Your task to perform on an android device: allow notifications from all sites in the chrome app Image 0: 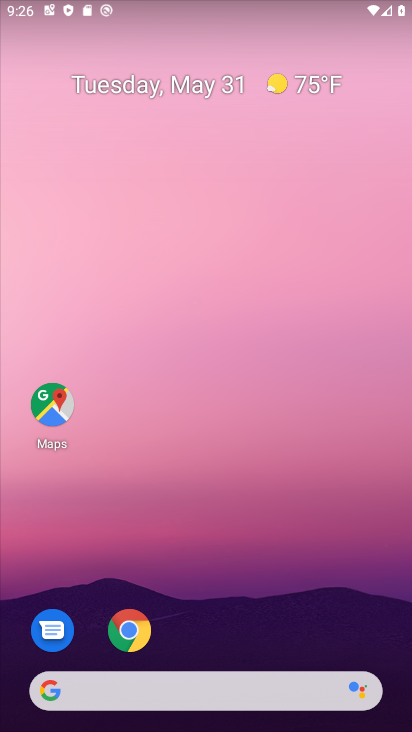
Step 0: drag from (226, 658) to (320, 110)
Your task to perform on an android device: allow notifications from all sites in the chrome app Image 1: 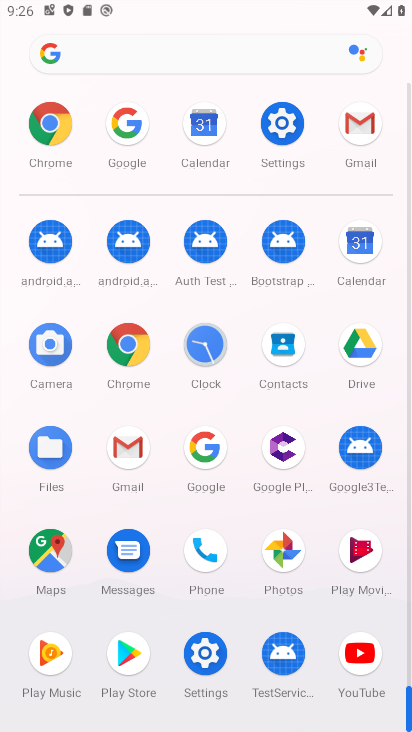
Step 1: click (132, 380)
Your task to perform on an android device: allow notifications from all sites in the chrome app Image 2: 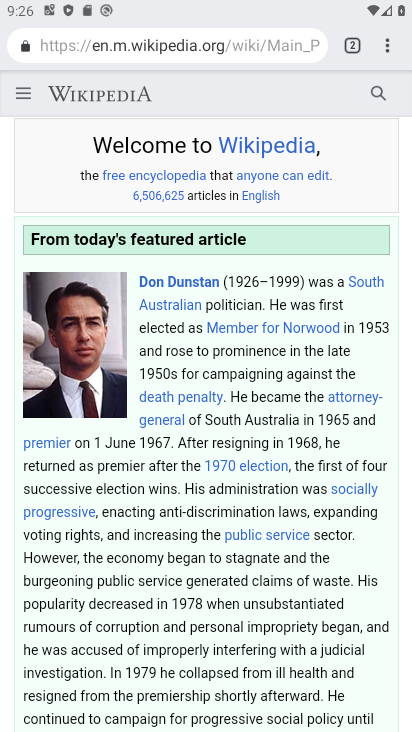
Step 2: click (392, 50)
Your task to perform on an android device: allow notifications from all sites in the chrome app Image 3: 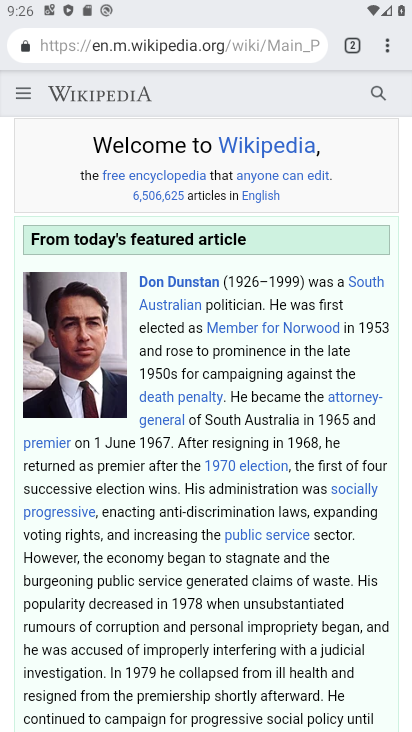
Step 3: click (389, 50)
Your task to perform on an android device: allow notifications from all sites in the chrome app Image 4: 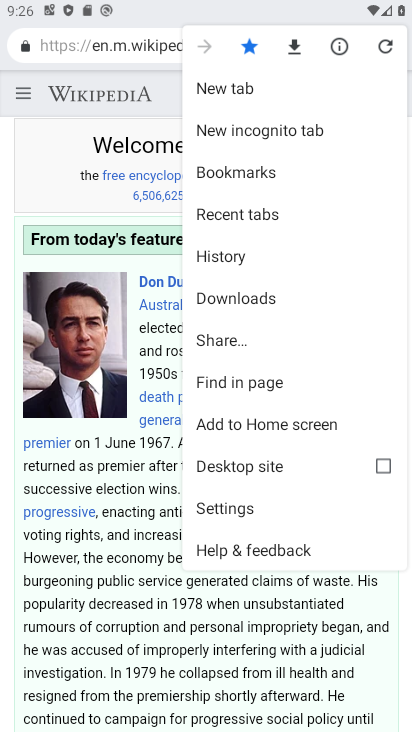
Step 4: click (255, 505)
Your task to perform on an android device: allow notifications from all sites in the chrome app Image 5: 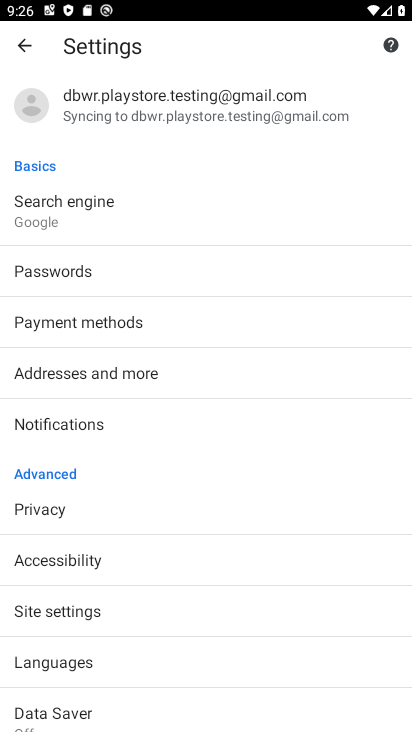
Step 5: click (115, 416)
Your task to perform on an android device: allow notifications from all sites in the chrome app Image 6: 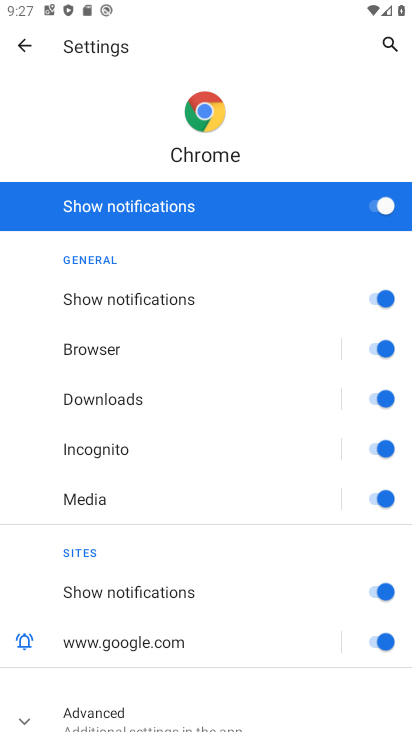
Step 6: task complete